Your task to perform on an android device: change the clock style Image 0: 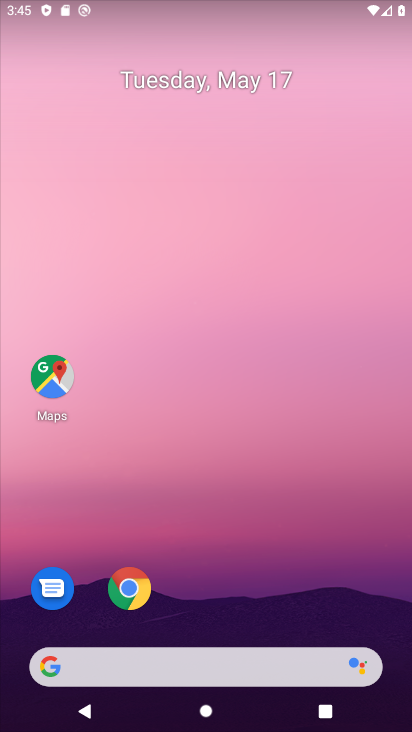
Step 0: drag from (242, 591) to (179, 61)
Your task to perform on an android device: change the clock style Image 1: 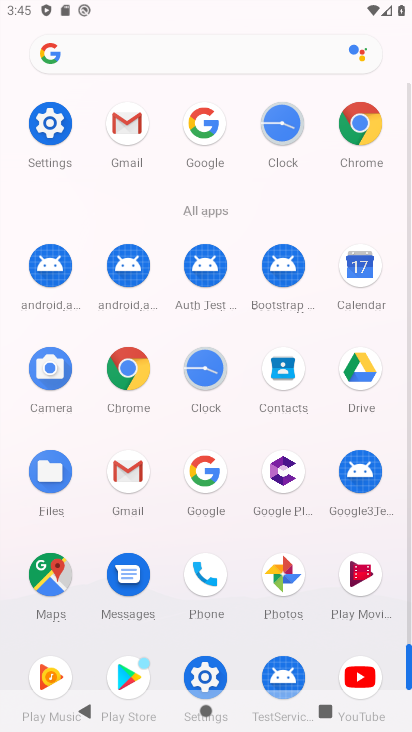
Step 1: drag from (243, 497) to (248, 223)
Your task to perform on an android device: change the clock style Image 2: 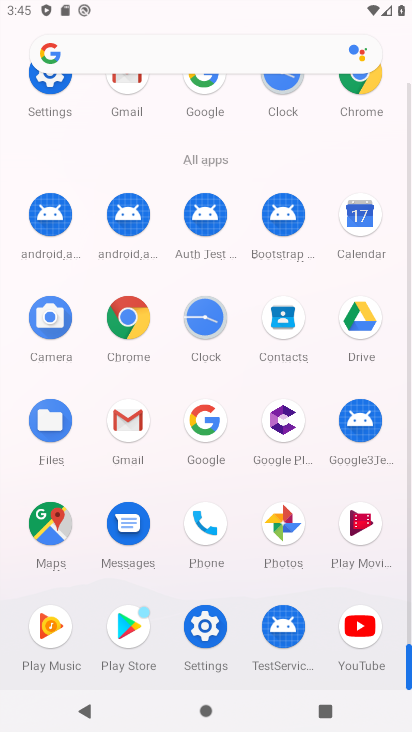
Step 2: click (203, 318)
Your task to perform on an android device: change the clock style Image 3: 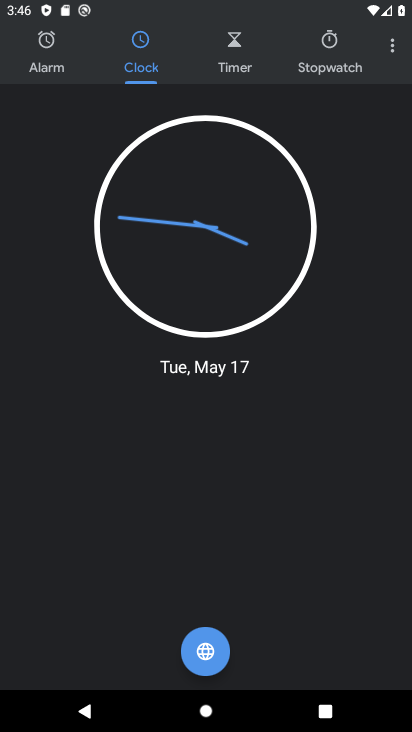
Step 3: click (393, 49)
Your task to perform on an android device: change the clock style Image 4: 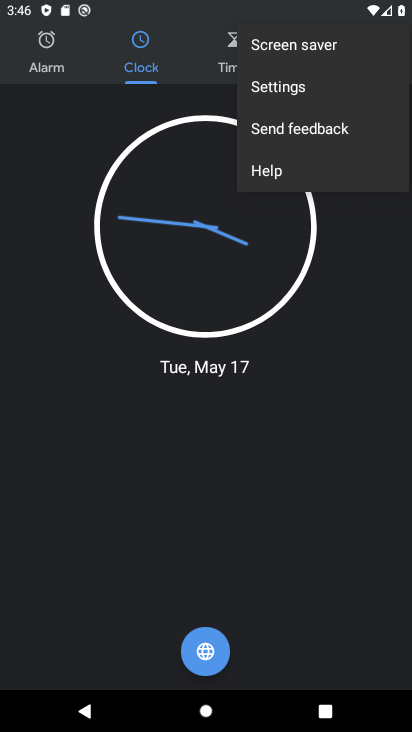
Step 4: click (305, 89)
Your task to perform on an android device: change the clock style Image 5: 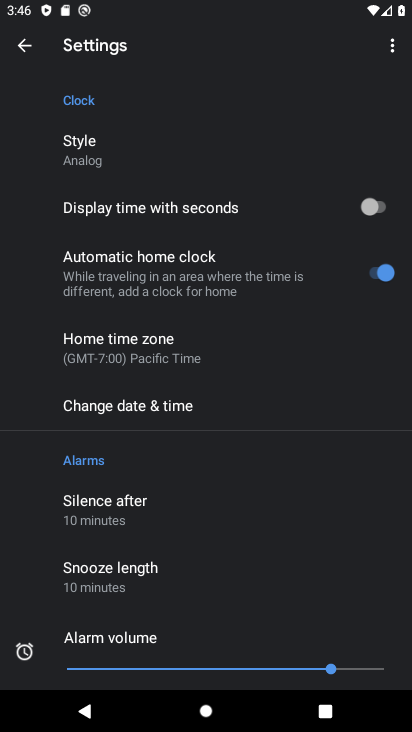
Step 5: click (94, 154)
Your task to perform on an android device: change the clock style Image 6: 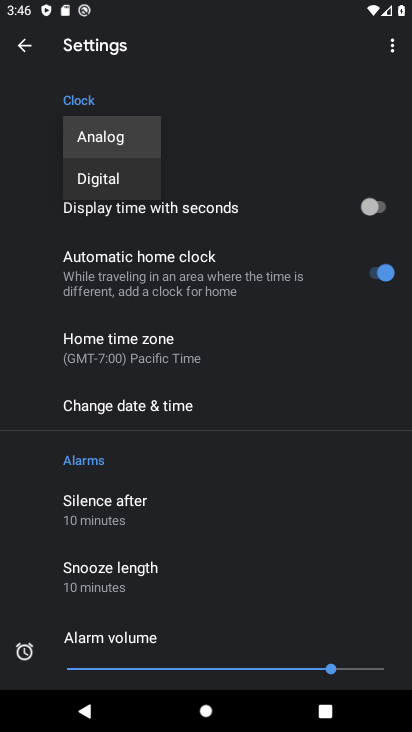
Step 6: click (106, 173)
Your task to perform on an android device: change the clock style Image 7: 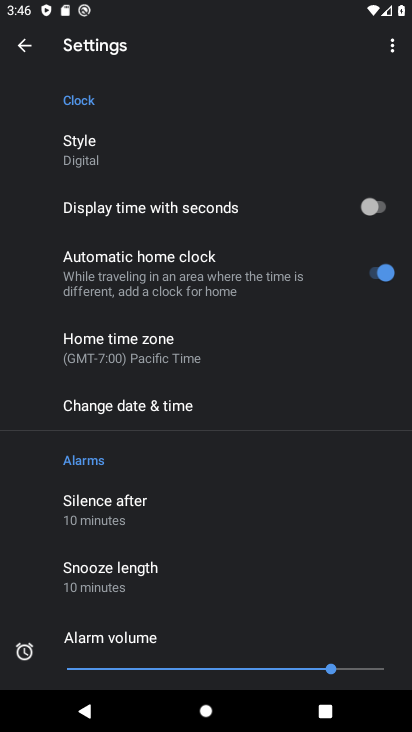
Step 7: task complete